Your task to perform on an android device: Go to Amazon Image 0: 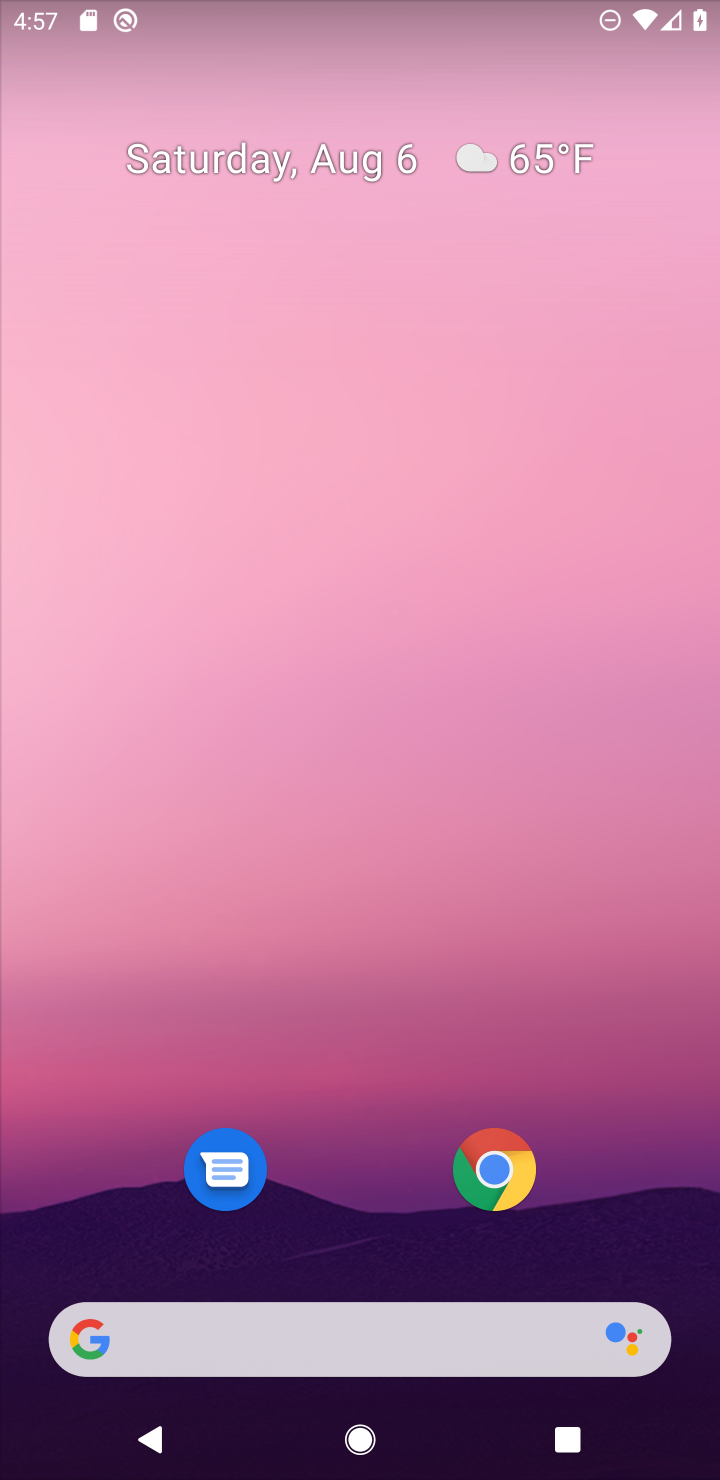
Step 0: drag from (385, 1211) to (454, 286)
Your task to perform on an android device: Go to Amazon Image 1: 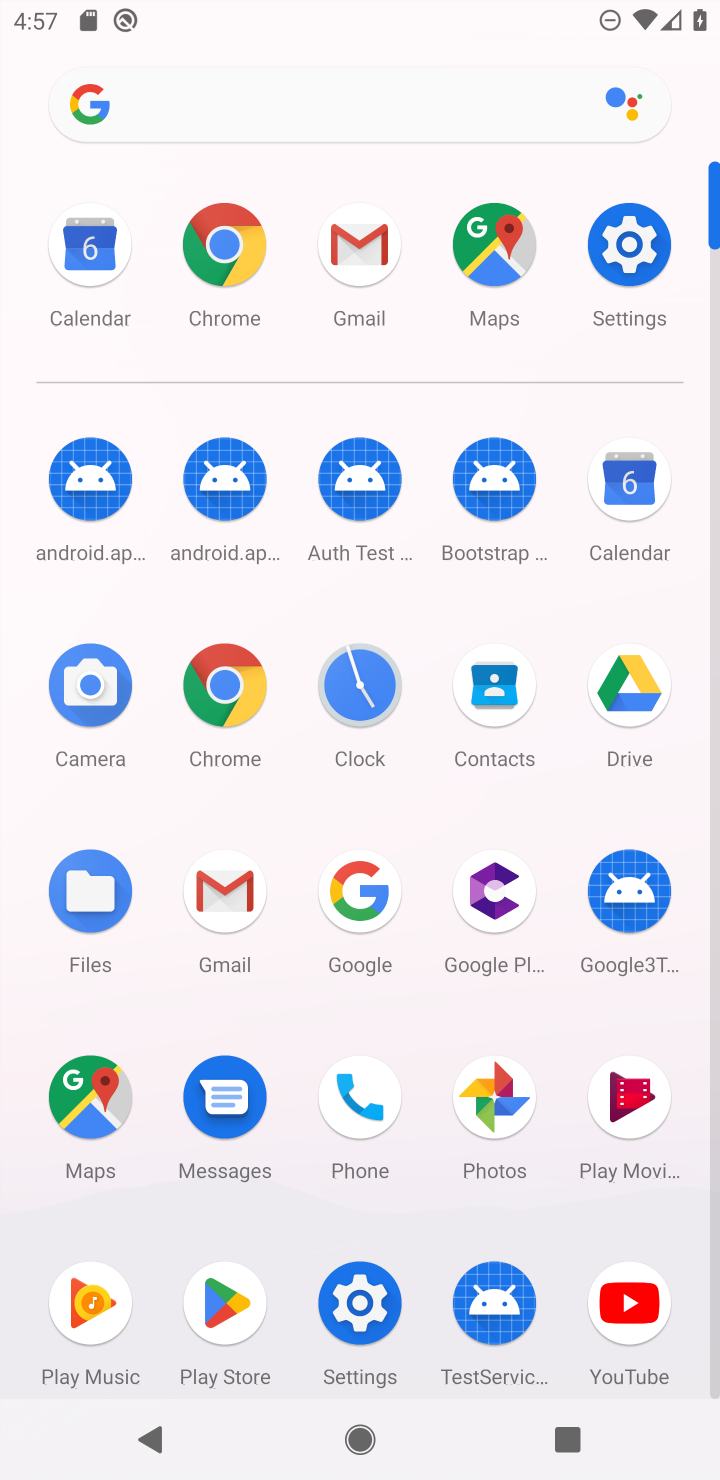
Step 1: click (237, 273)
Your task to perform on an android device: Go to Amazon Image 2: 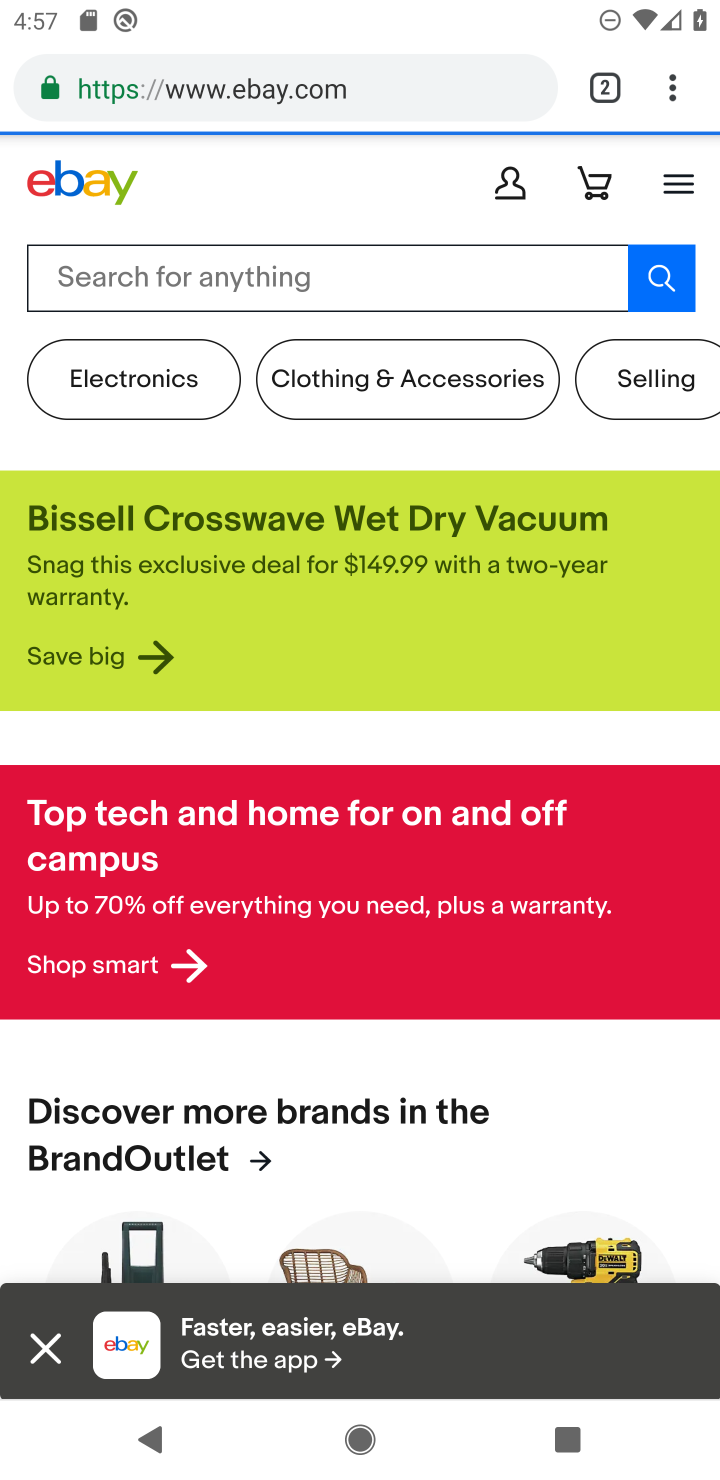
Step 2: click (299, 95)
Your task to perform on an android device: Go to Amazon Image 3: 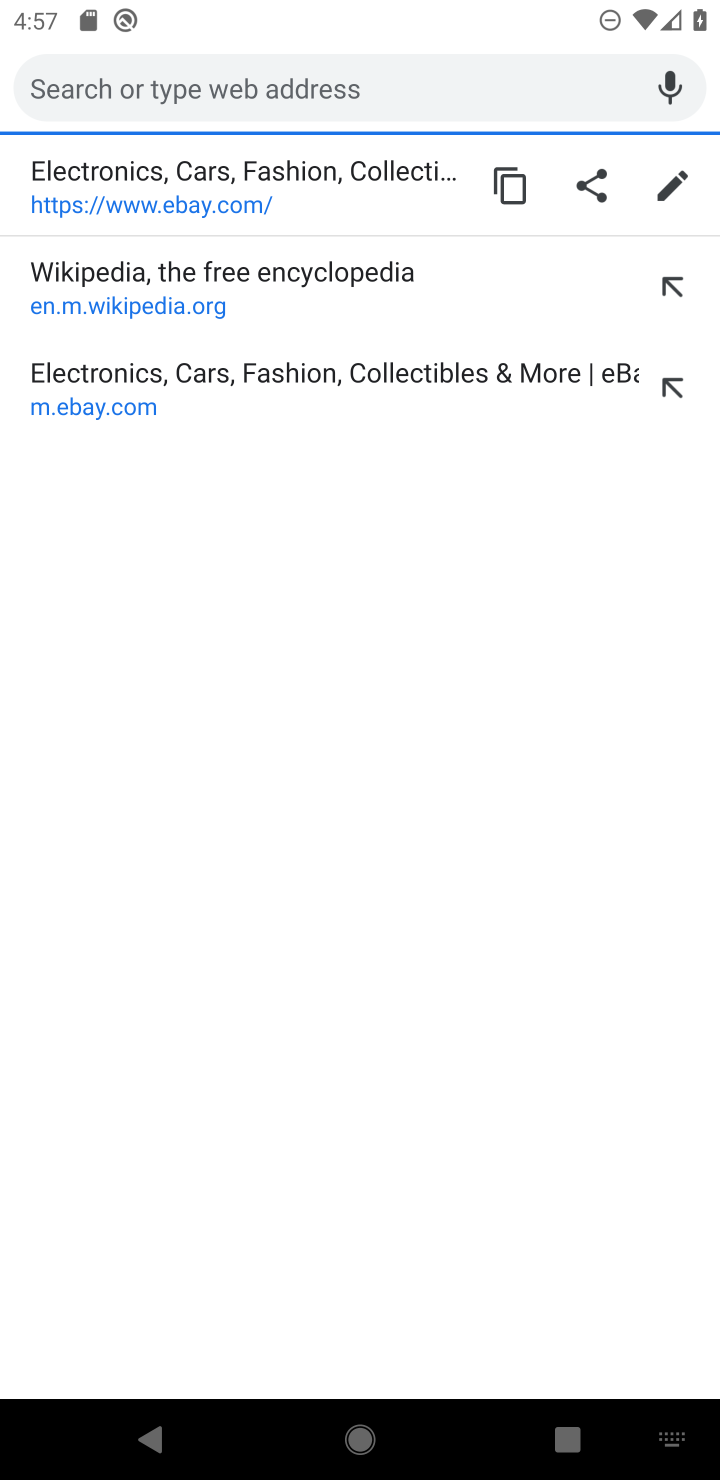
Step 3: type "amazon"
Your task to perform on an android device: Go to Amazon Image 4: 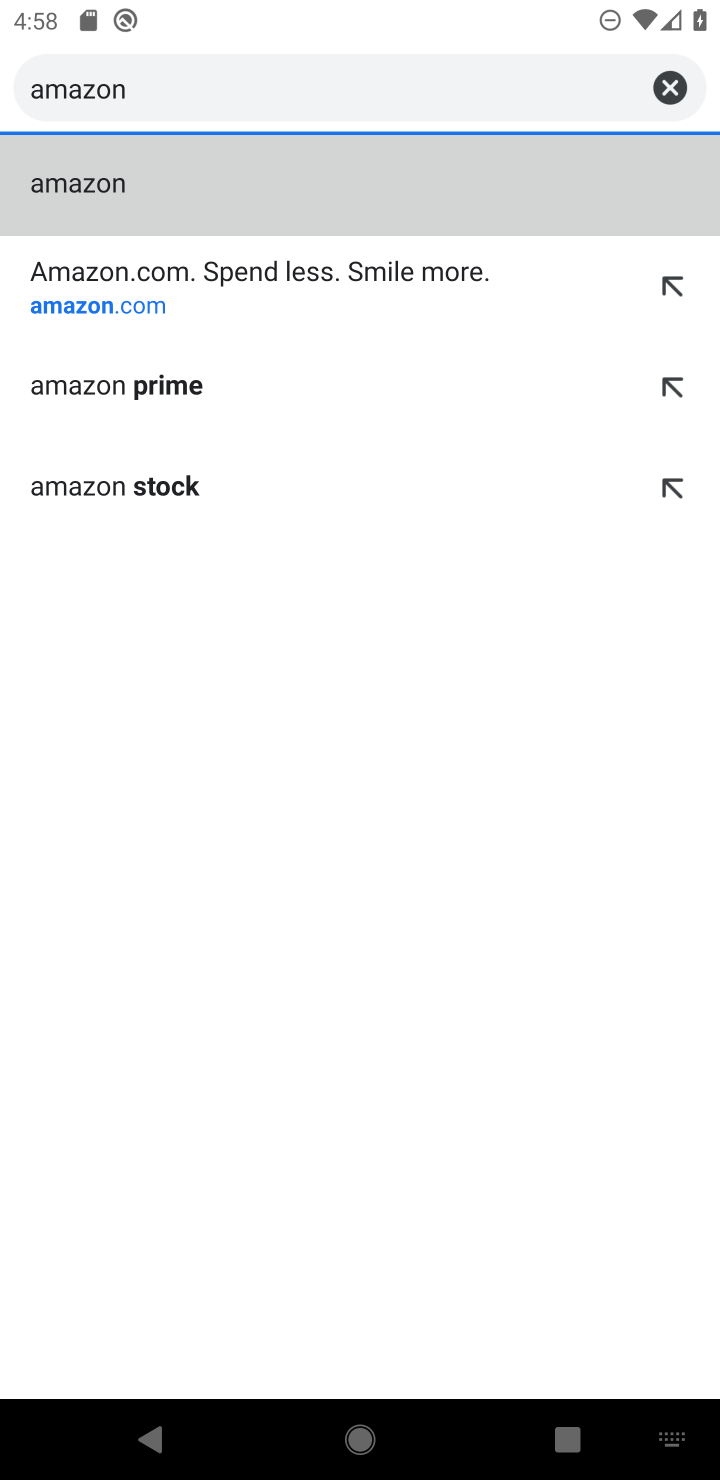
Step 4: click (325, 149)
Your task to perform on an android device: Go to Amazon Image 5: 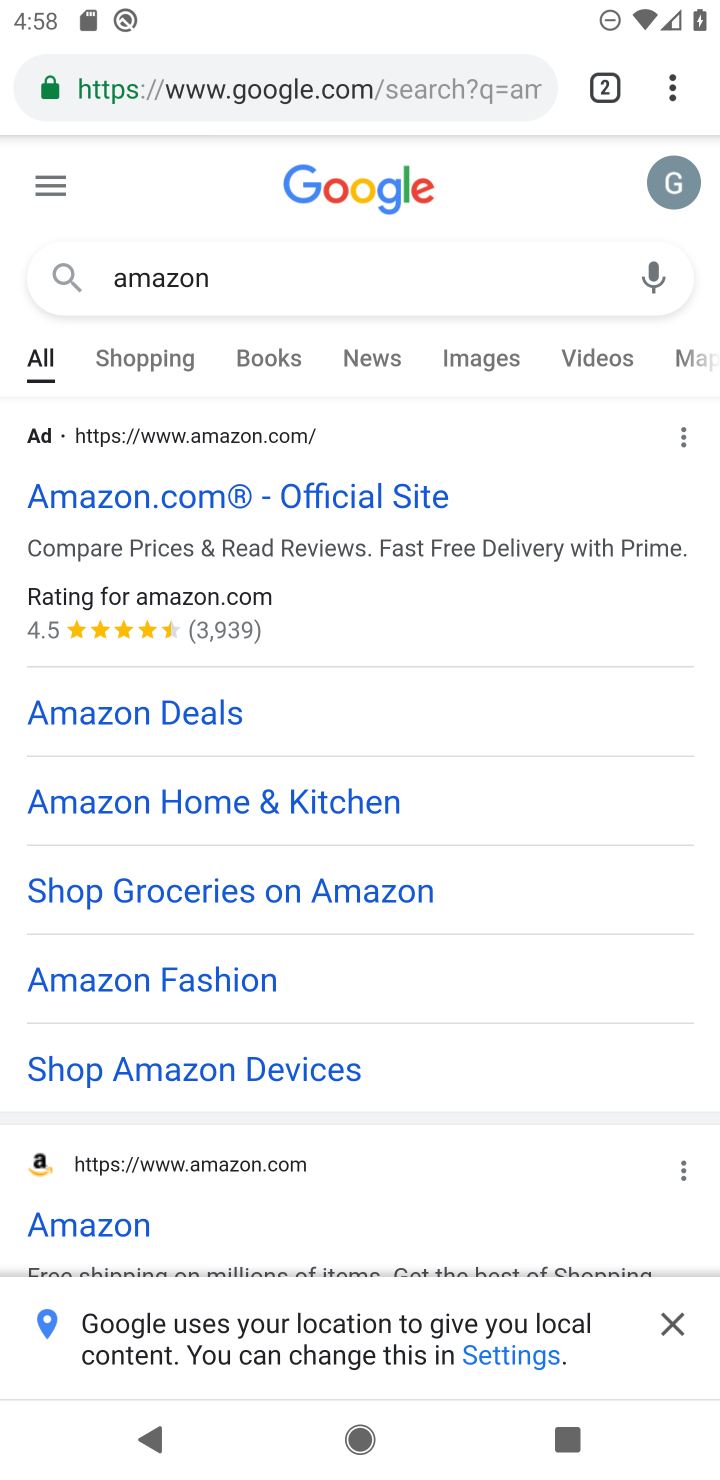
Step 5: click (274, 480)
Your task to perform on an android device: Go to Amazon Image 6: 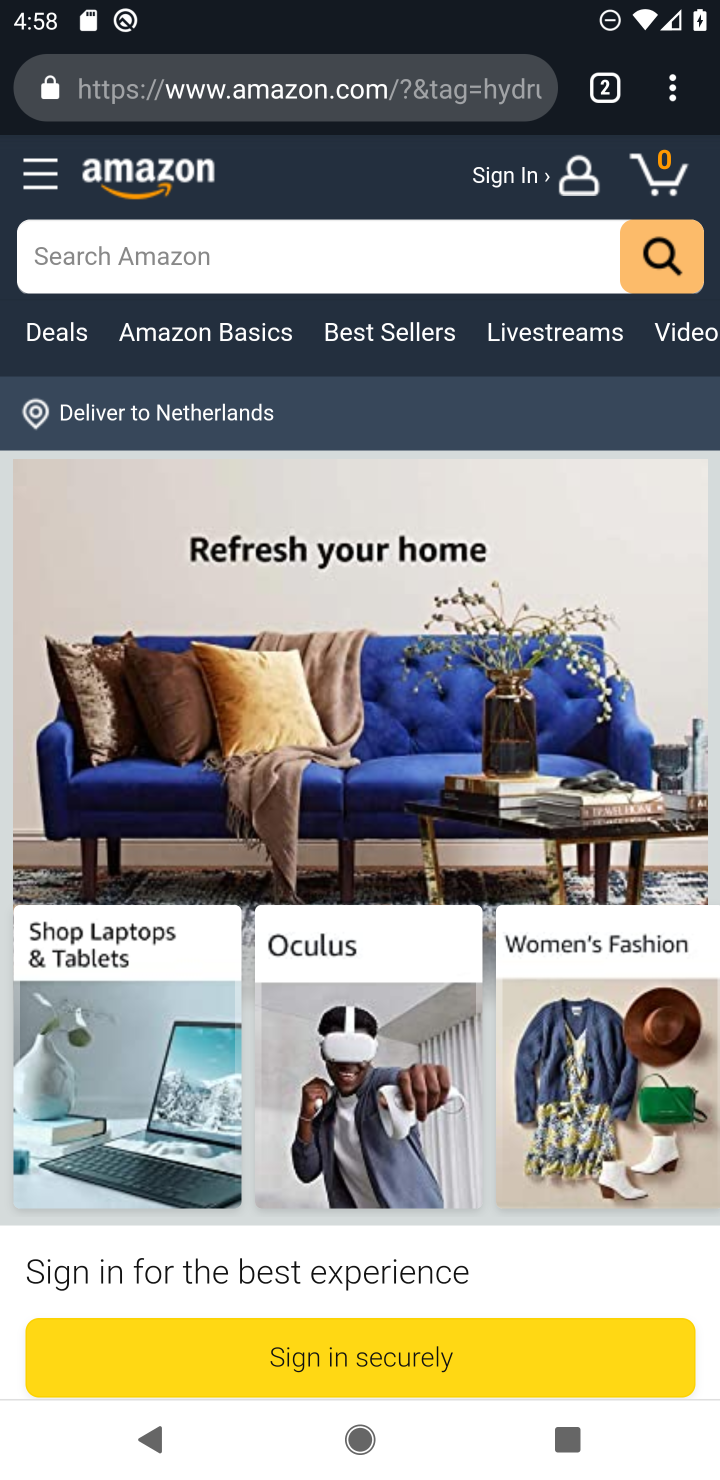
Step 6: task complete